Your task to perform on an android device: turn on improve location accuracy Image 0: 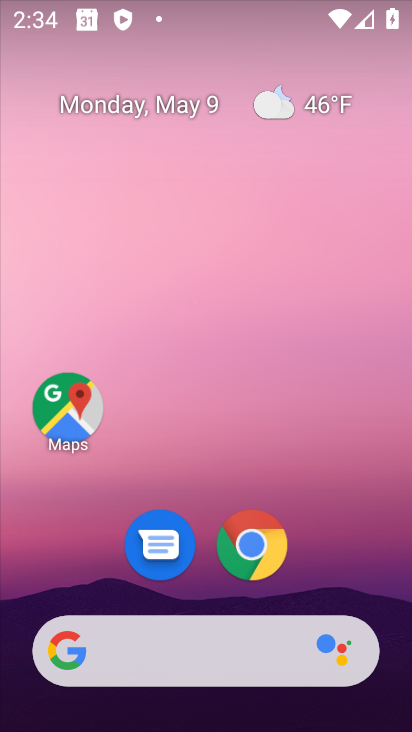
Step 0: drag from (202, 590) to (209, 240)
Your task to perform on an android device: turn on improve location accuracy Image 1: 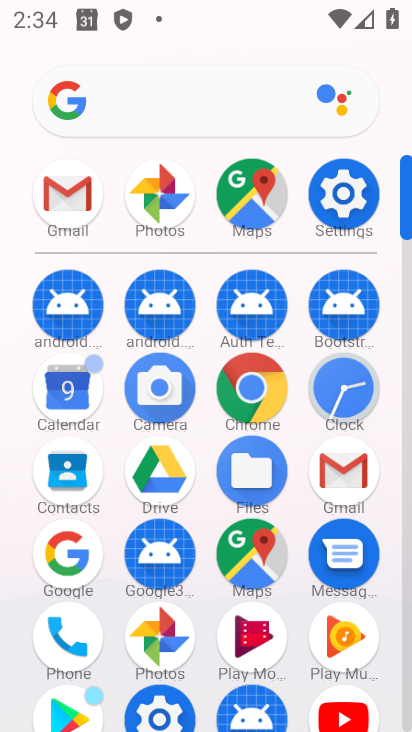
Step 1: click (326, 218)
Your task to perform on an android device: turn on improve location accuracy Image 2: 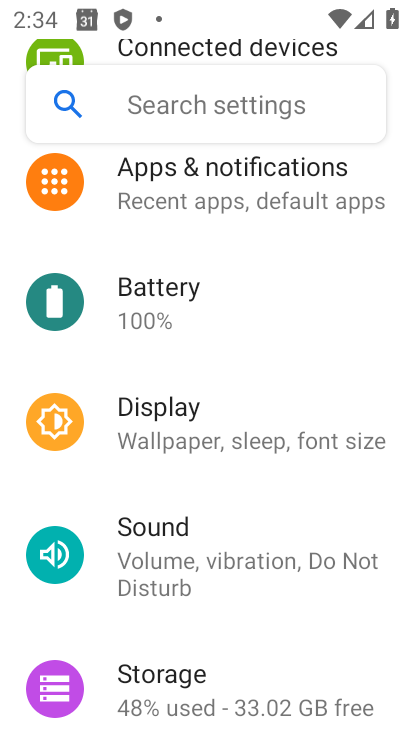
Step 2: drag from (218, 647) to (239, 272)
Your task to perform on an android device: turn on improve location accuracy Image 3: 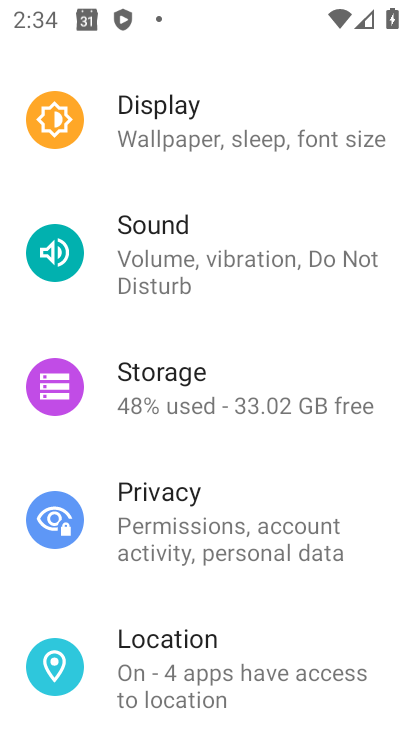
Step 3: click (220, 653)
Your task to perform on an android device: turn on improve location accuracy Image 4: 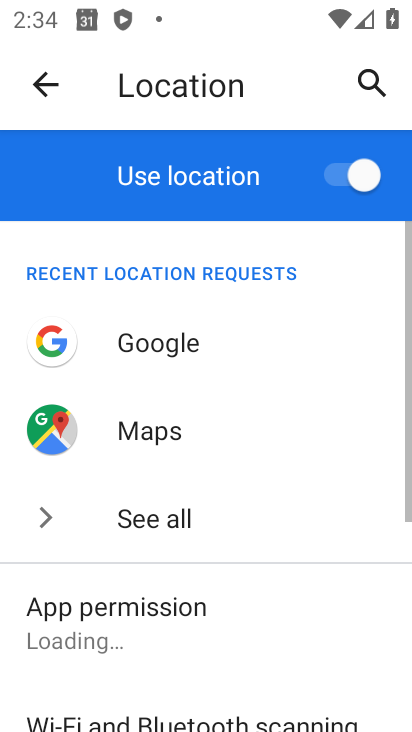
Step 4: drag from (235, 648) to (287, 295)
Your task to perform on an android device: turn on improve location accuracy Image 5: 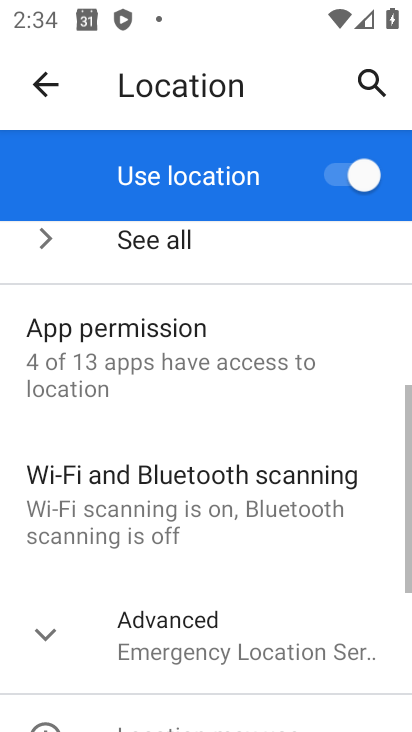
Step 5: click (218, 605)
Your task to perform on an android device: turn on improve location accuracy Image 6: 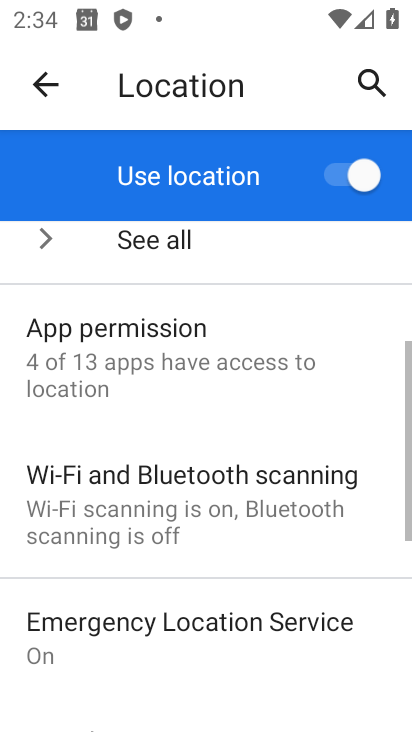
Step 6: drag from (213, 657) to (312, 312)
Your task to perform on an android device: turn on improve location accuracy Image 7: 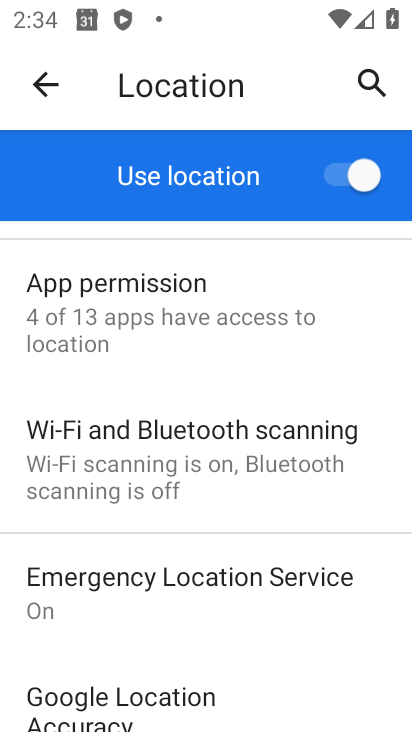
Step 7: drag from (227, 646) to (251, 365)
Your task to perform on an android device: turn on improve location accuracy Image 8: 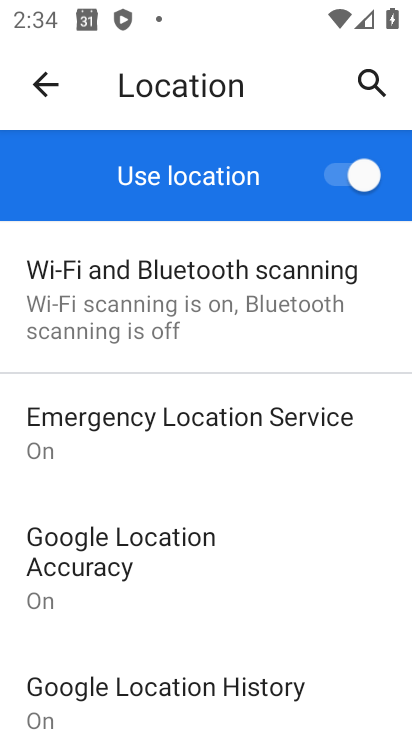
Step 8: click (126, 551)
Your task to perform on an android device: turn on improve location accuracy Image 9: 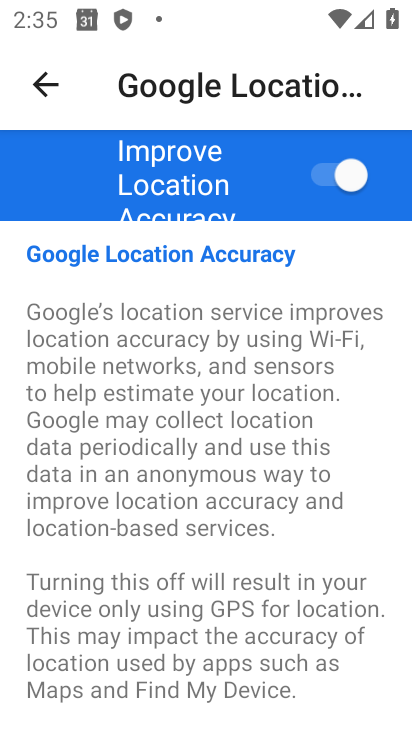
Step 9: task complete